Your task to perform on an android device: add a contact Image 0: 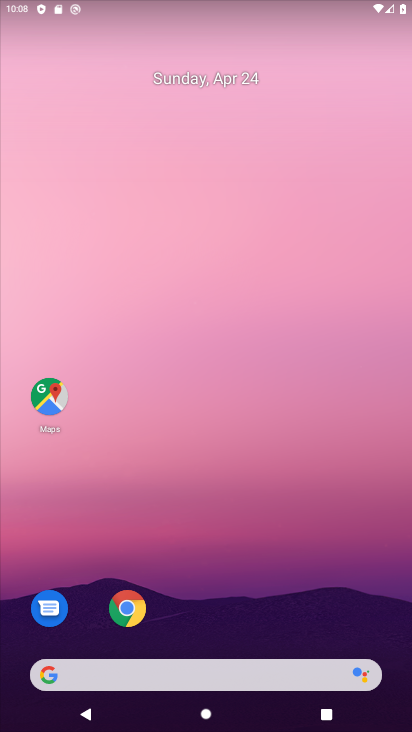
Step 0: drag from (281, 701) to (277, 225)
Your task to perform on an android device: add a contact Image 1: 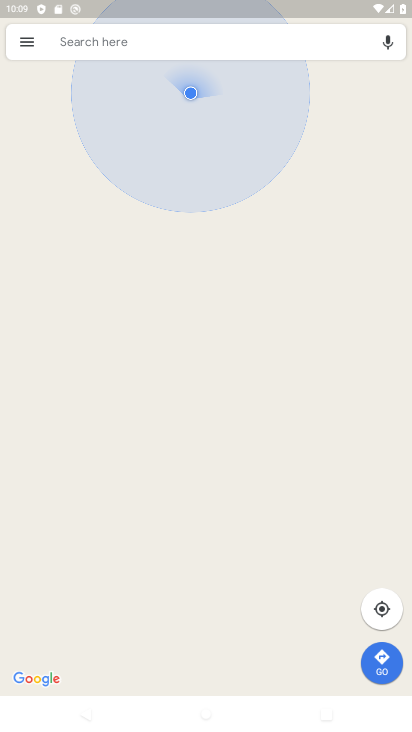
Step 1: press home button
Your task to perform on an android device: add a contact Image 2: 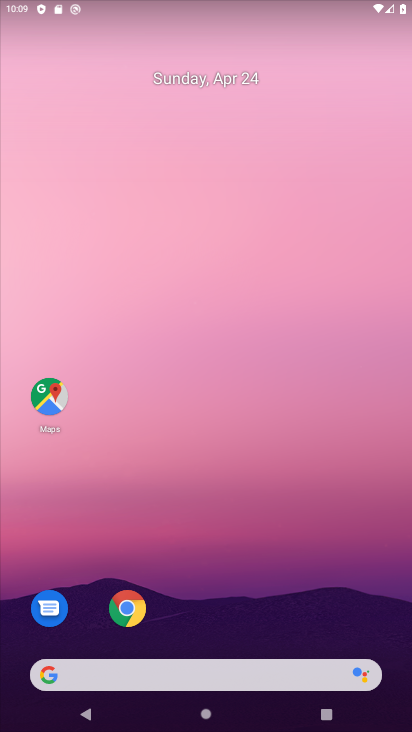
Step 2: drag from (248, 698) to (225, 148)
Your task to perform on an android device: add a contact Image 3: 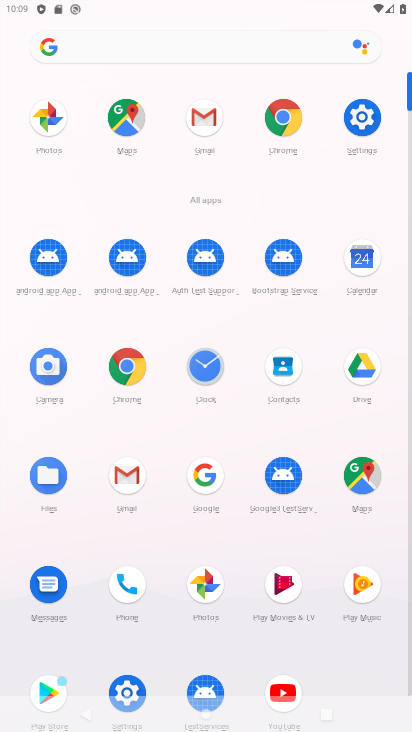
Step 3: click (129, 581)
Your task to perform on an android device: add a contact Image 4: 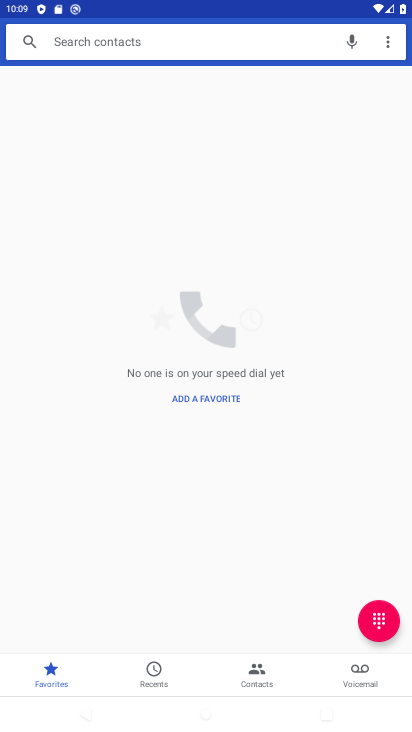
Step 4: click (251, 669)
Your task to perform on an android device: add a contact Image 5: 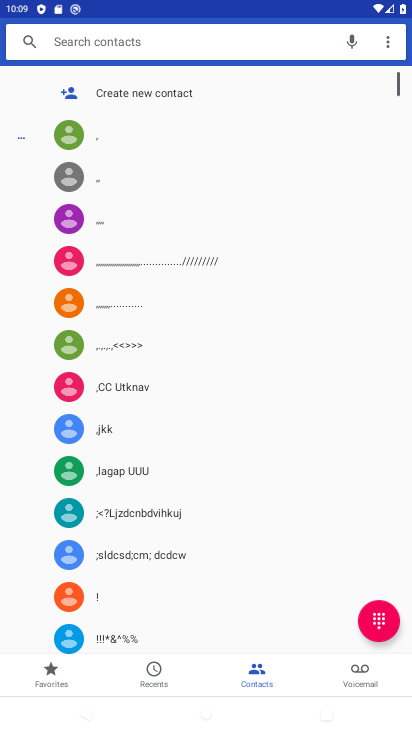
Step 5: click (126, 93)
Your task to perform on an android device: add a contact Image 6: 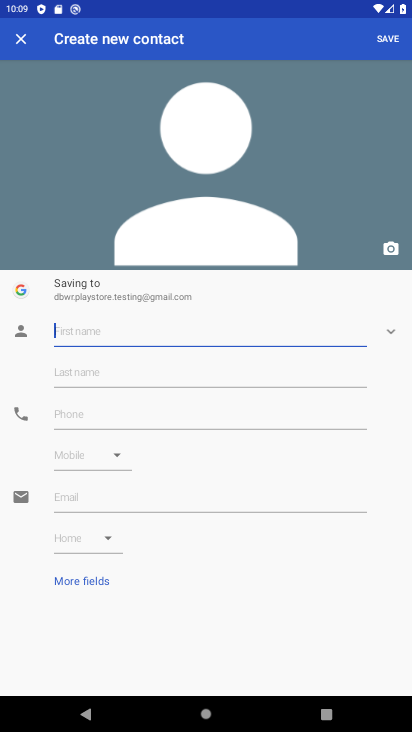
Step 6: click (148, 332)
Your task to perform on an android device: add a contact Image 7: 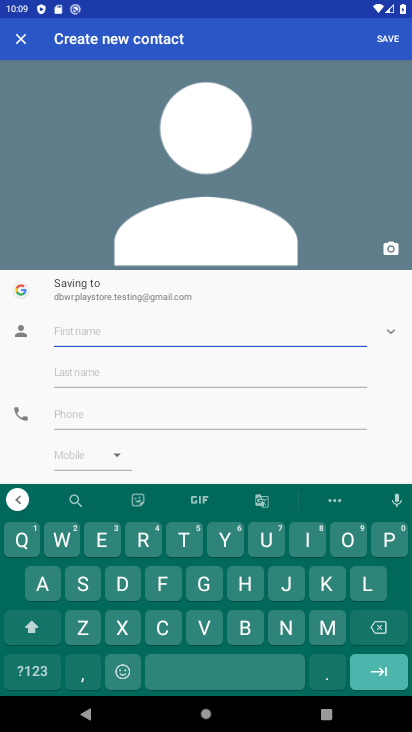
Step 7: click (206, 625)
Your task to perform on an android device: add a contact Image 8: 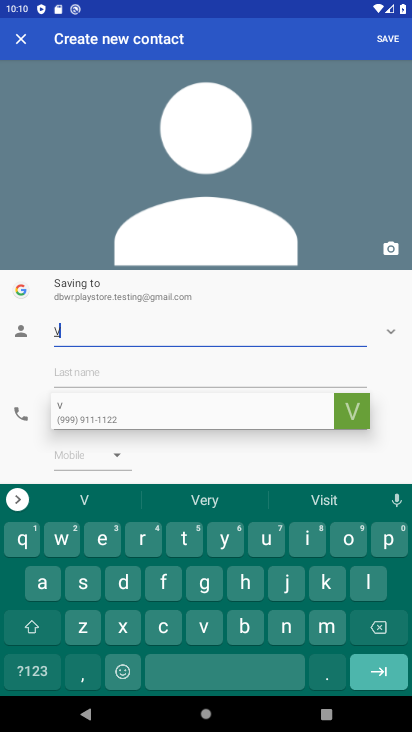
Step 8: click (310, 547)
Your task to perform on an android device: add a contact Image 9: 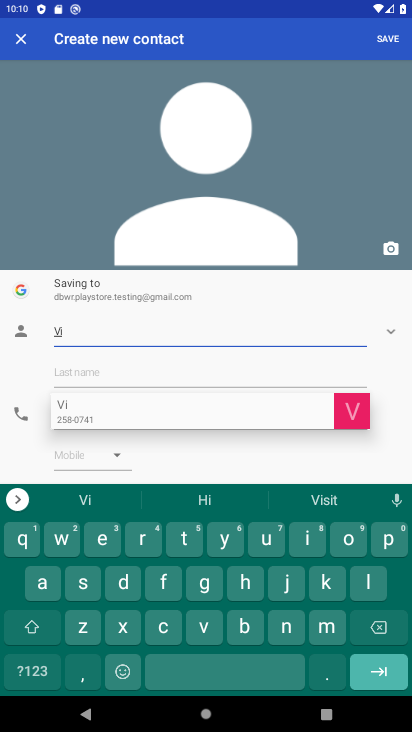
Step 9: click (181, 544)
Your task to perform on an android device: add a contact Image 10: 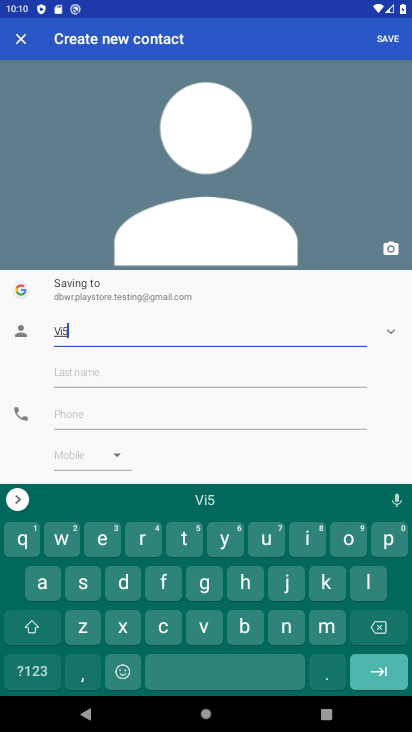
Step 10: click (117, 416)
Your task to perform on an android device: add a contact Image 11: 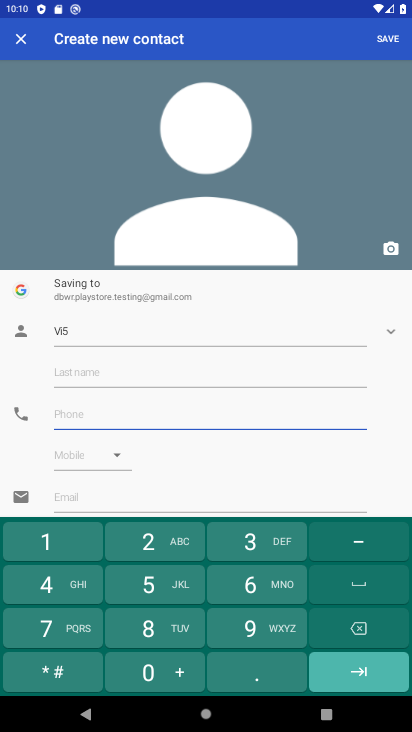
Step 11: click (248, 629)
Your task to perform on an android device: add a contact Image 12: 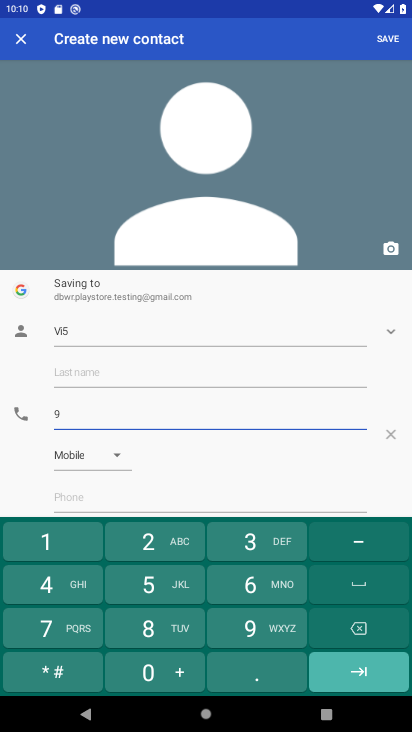
Step 12: click (260, 618)
Your task to perform on an android device: add a contact Image 13: 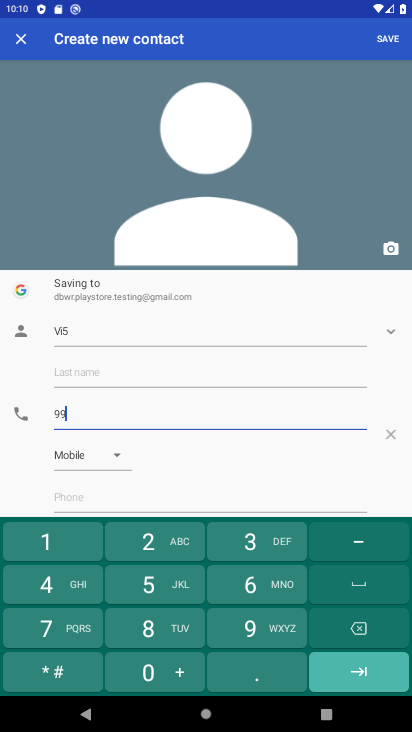
Step 13: click (270, 585)
Your task to perform on an android device: add a contact Image 14: 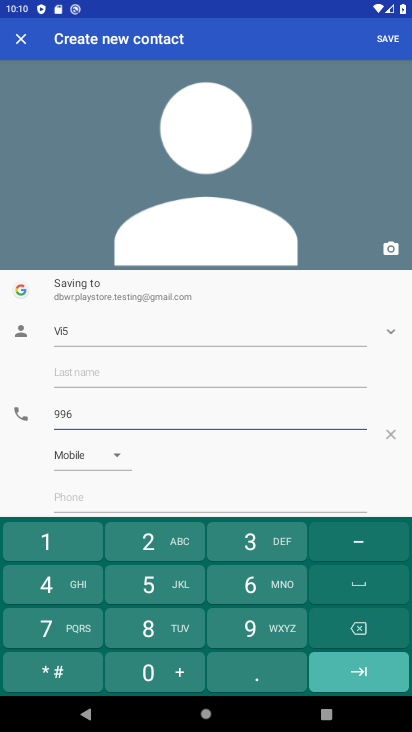
Step 14: click (161, 581)
Your task to perform on an android device: add a contact Image 15: 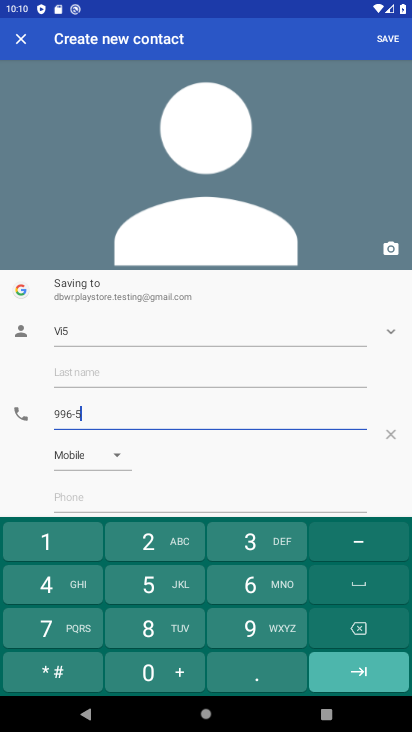
Step 15: click (144, 559)
Your task to perform on an android device: add a contact Image 16: 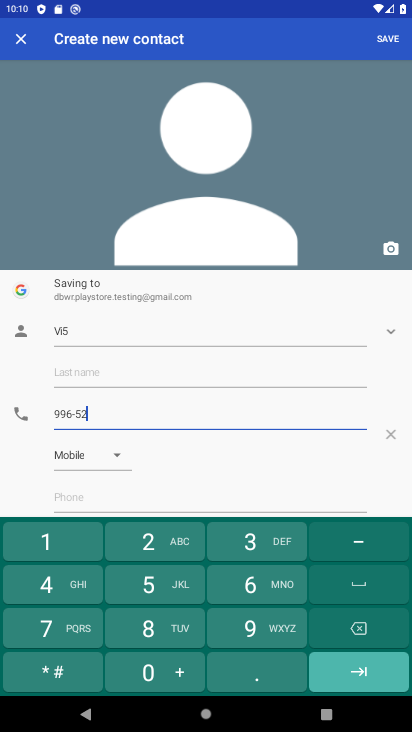
Step 16: click (63, 585)
Your task to perform on an android device: add a contact Image 17: 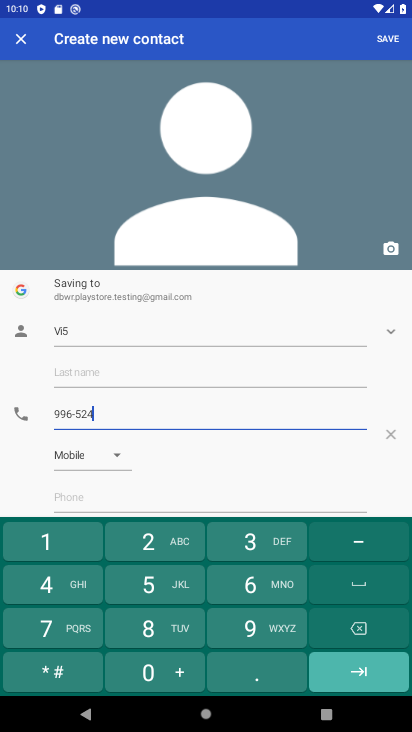
Step 17: click (153, 583)
Your task to perform on an android device: add a contact Image 18: 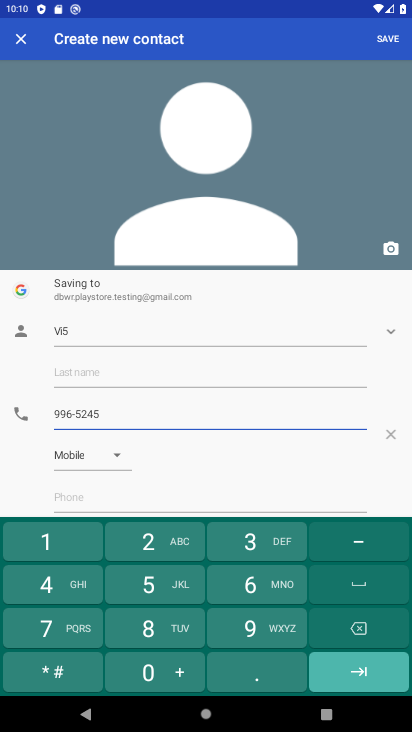
Step 18: click (161, 543)
Your task to perform on an android device: add a contact Image 19: 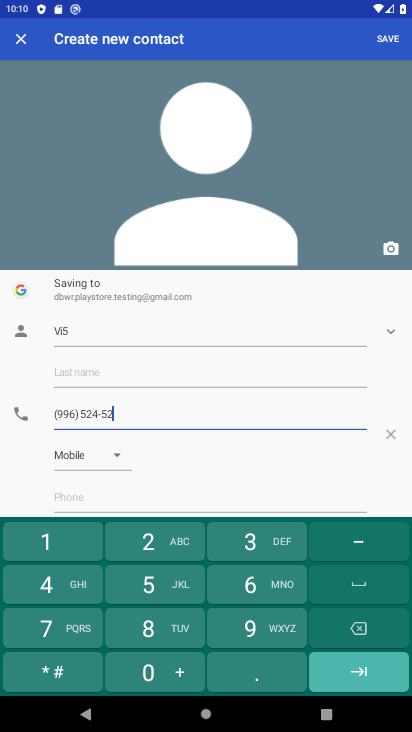
Step 19: click (155, 675)
Your task to perform on an android device: add a contact Image 20: 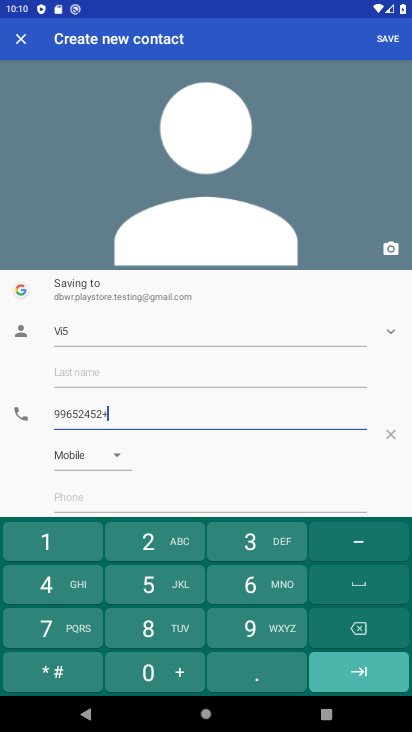
Step 20: click (172, 628)
Your task to perform on an android device: add a contact Image 21: 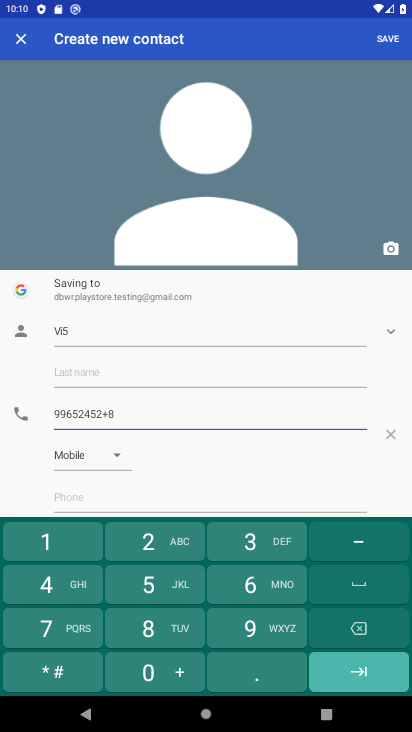
Step 21: click (358, 618)
Your task to perform on an android device: add a contact Image 22: 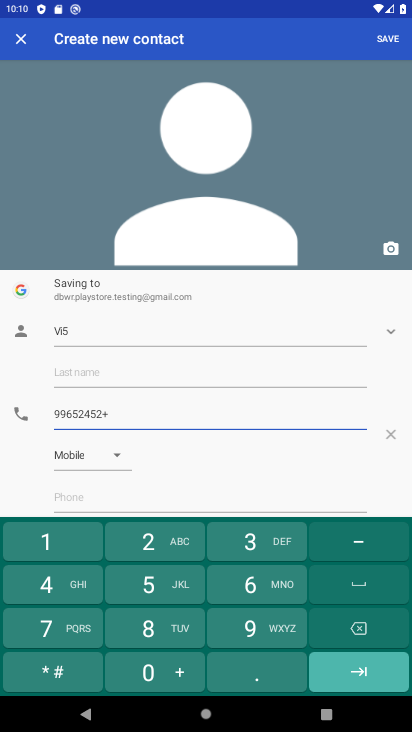
Step 22: click (360, 618)
Your task to perform on an android device: add a contact Image 23: 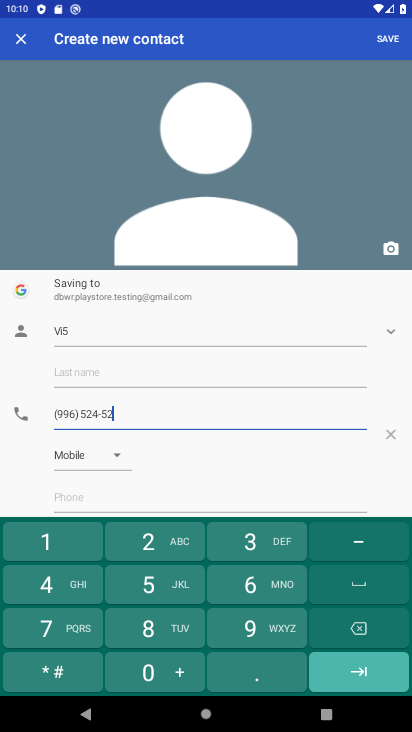
Step 23: click (267, 624)
Your task to perform on an android device: add a contact Image 24: 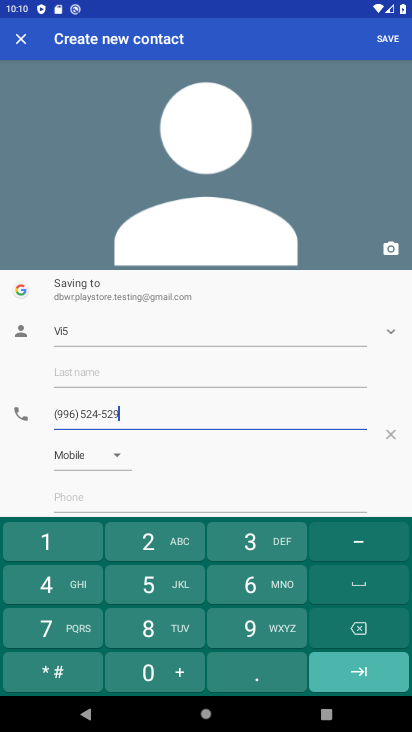
Step 24: click (158, 630)
Your task to perform on an android device: add a contact Image 25: 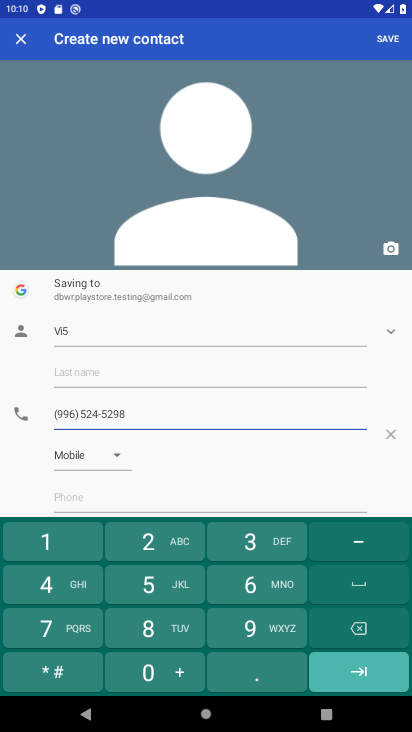
Step 25: click (375, 33)
Your task to perform on an android device: add a contact Image 26: 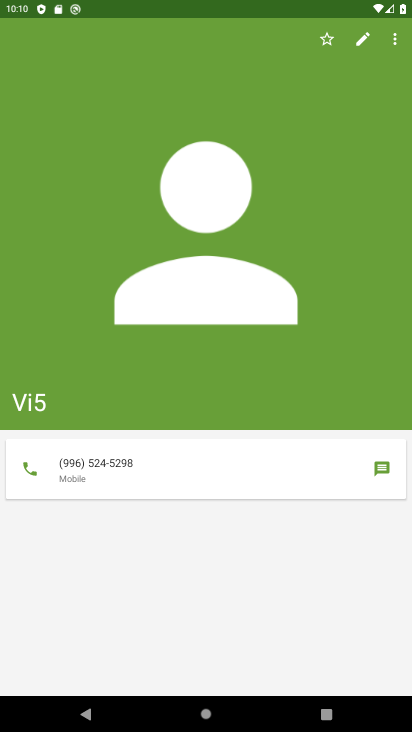
Step 26: task complete